Your task to perform on an android device: change alarm snooze length Image 0: 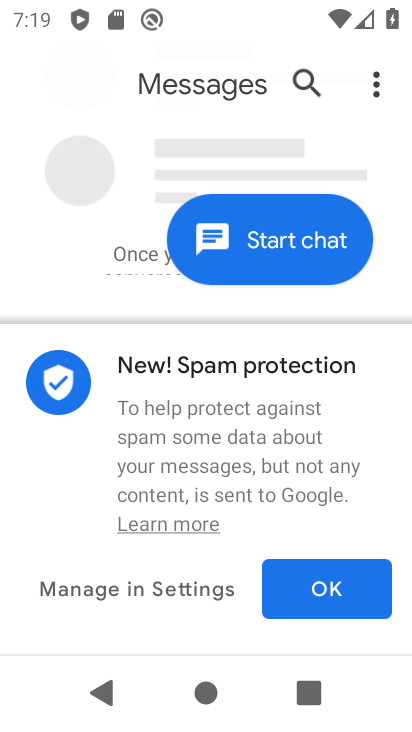
Step 0: press home button
Your task to perform on an android device: change alarm snooze length Image 1: 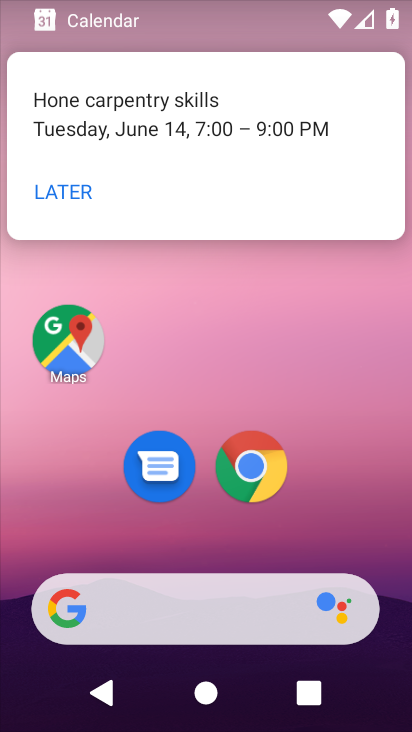
Step 1: drag from (145, 611) to (330, 71)
Your task to perform on an android device: change alarm snooze length Image 2: 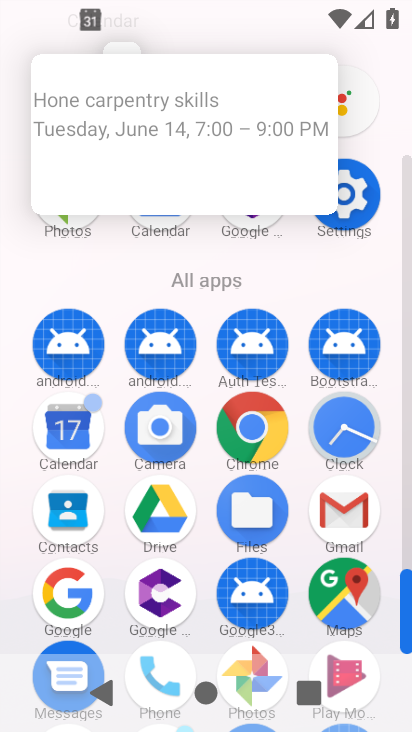
Step 2: click (72, 197)
Your task to perform on an android device: change alarm snooze length Image 3: 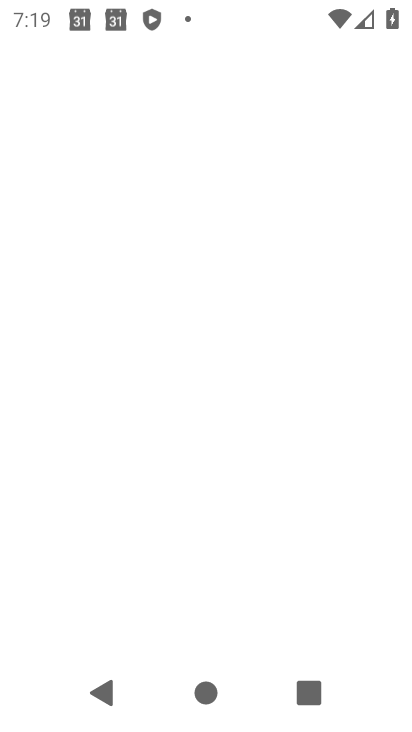
Step 3: press home button
Your task to perform on an android device: change alarm snooze length Image 4: 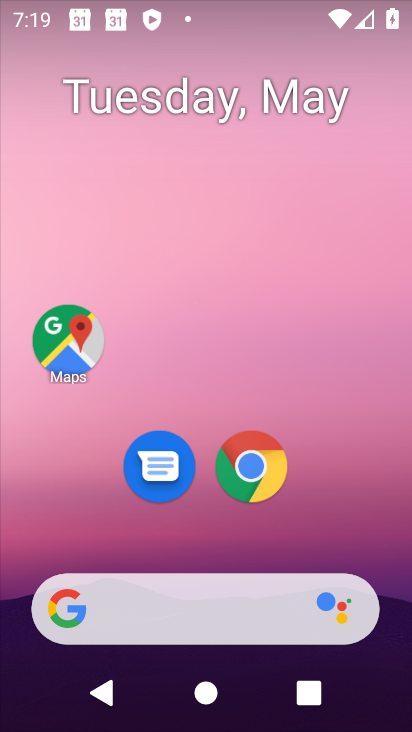
Step 4: drag from (205, 610) to (385, 80)
Your task to perform on an android device: change alarm snooze length Image 5: 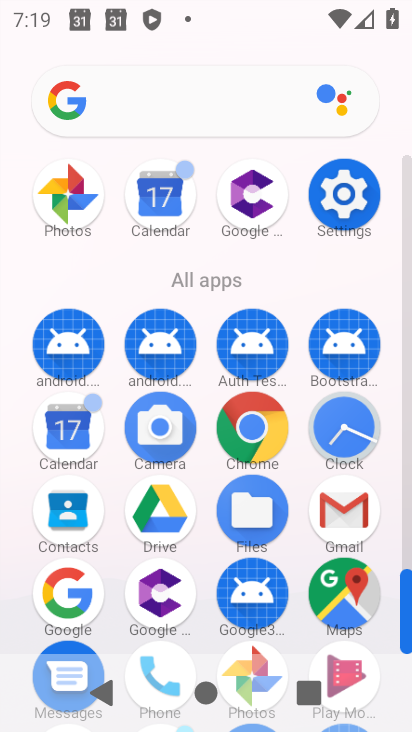
Step 5: click (336, 435)
Your task to perform on an android device: change alarm snooze length Image 6: 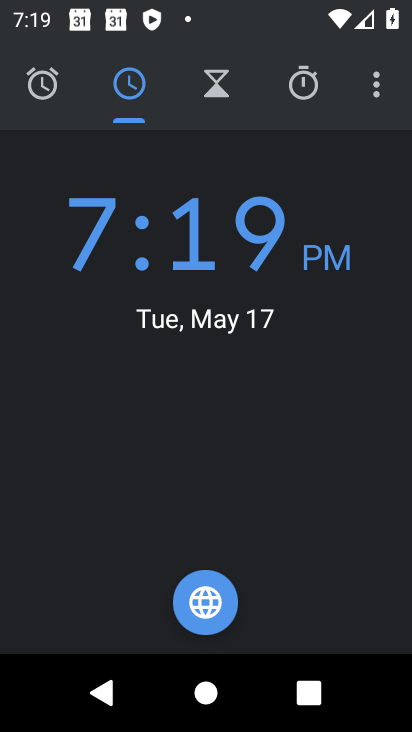
Step 6: click (382, 99)
Your task to perform on an android device: change alarm snooze length Image 7: 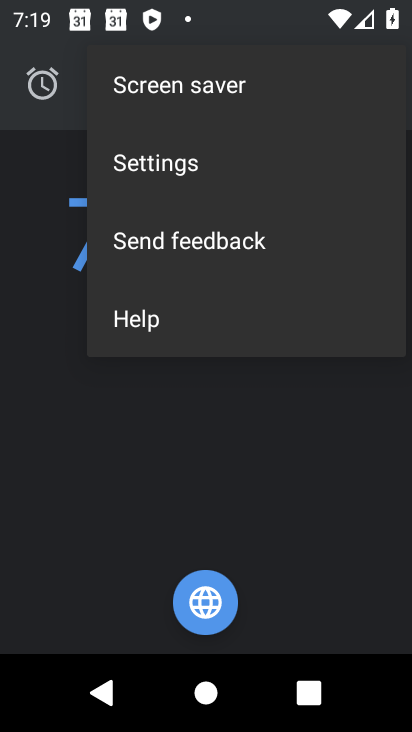
Step 7: click (220, 178)
Your task to perform on an android device: change alarm snooze length Image 8: 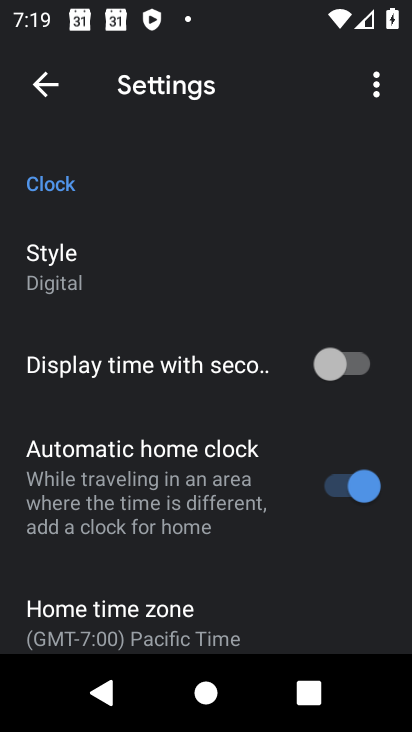
Step 8: drag from (142, 543) to (360, 27)
Your task to perform on an android device: change alarm snooze length Image 9: 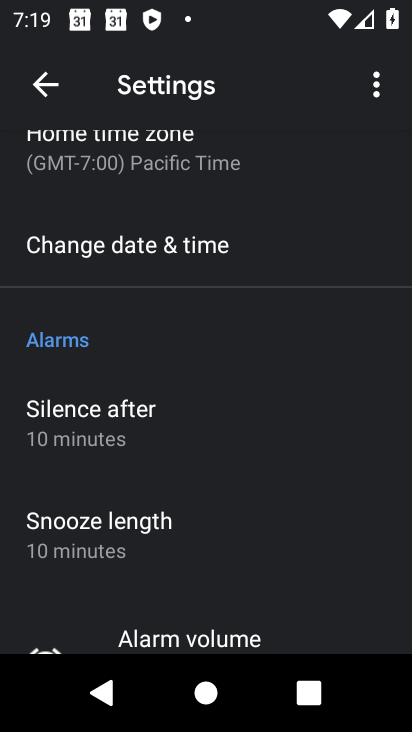
Step 9: click (158, 531)
Your task to perform on an android device: change alarm snooze length Image 10: 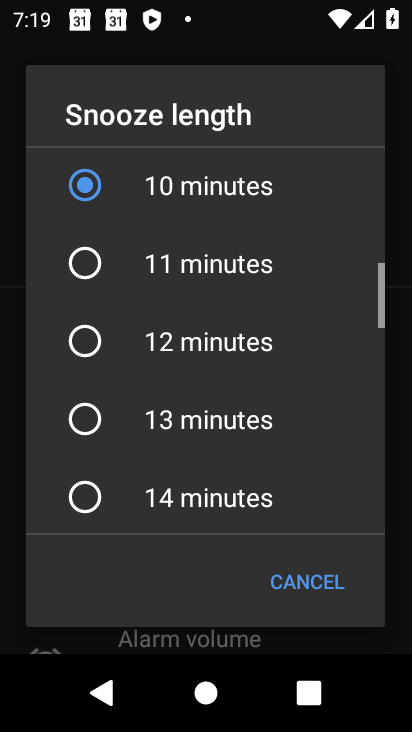
Step 10: click (81, 421)
Your task to perform on an android device: change alarm snooze length Image 11: 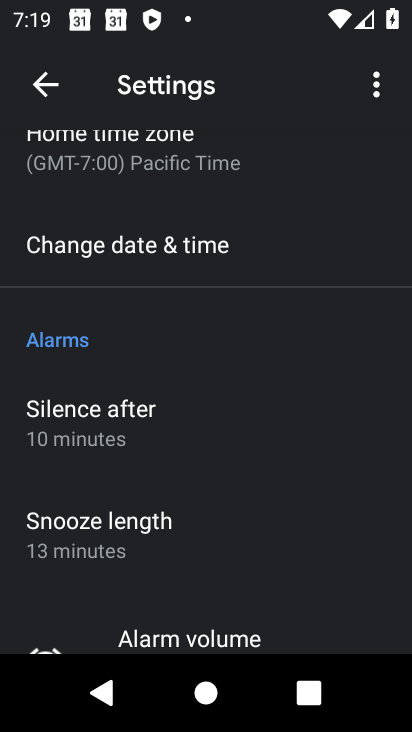
Step 11: task complete